Your task to perform on an android device: toggle notification dots Image 0: 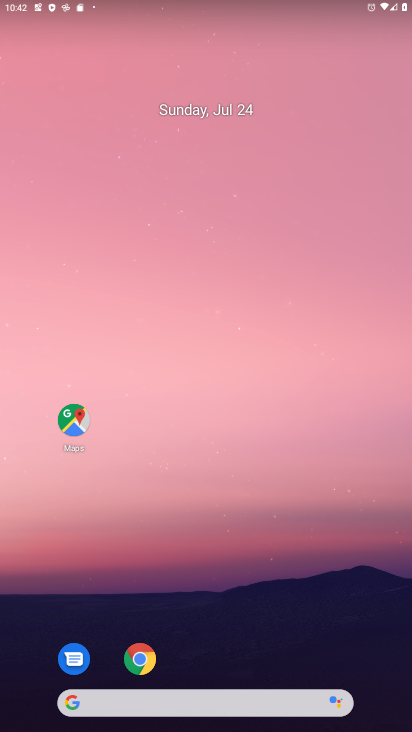
Step 0: drag from (302, 321) to (291, 195)
Your task to perform on an android device: toggle notification dots Image 1: 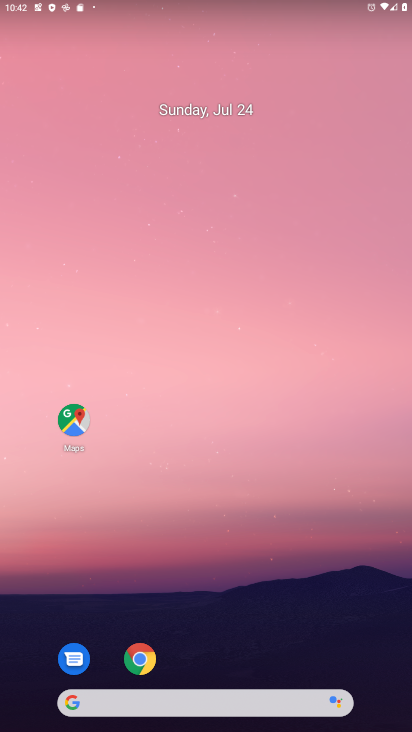
Step 1: drag from (382, 702) to (283, 11)
Your task to perform on an android device: toggle notification dots Image 2: 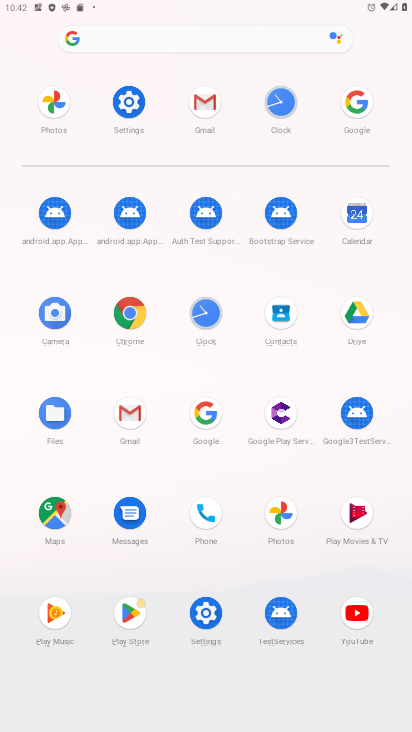
Step 2: click (125, 103)
Your task to perform on an android device: toggle notification dots Image 3: 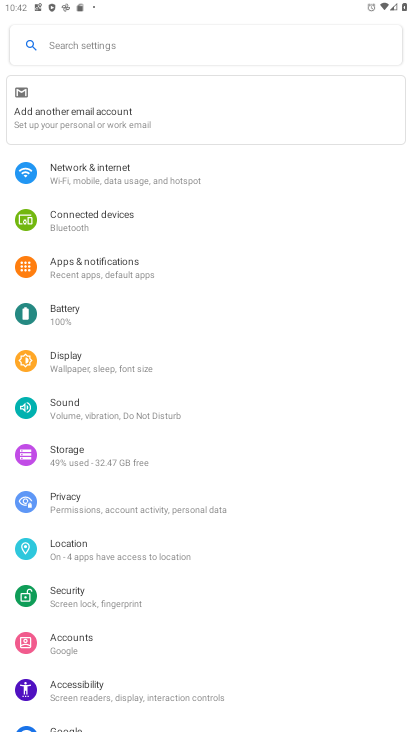
Step 3: click (57, 167)
Your task to perform on an android device: toggle notification dots Image 4: 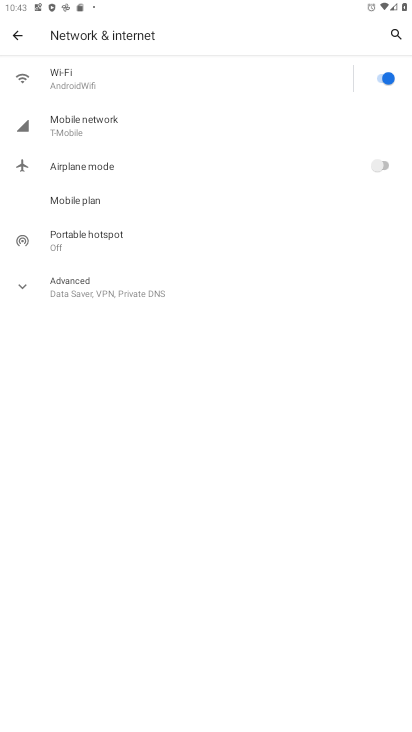
Step 4: click (17, 42)
Your task to perform on an android device: toggle notification dots Image 5: 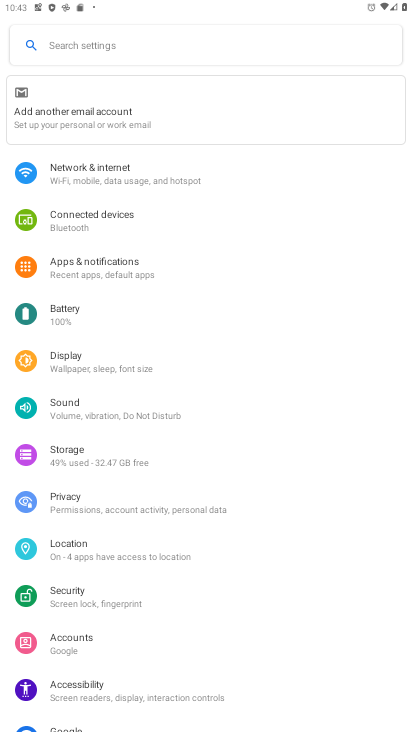
Step 5: click (117, 275)
Your task to perform on an android device: toggle notification dots Image 6: 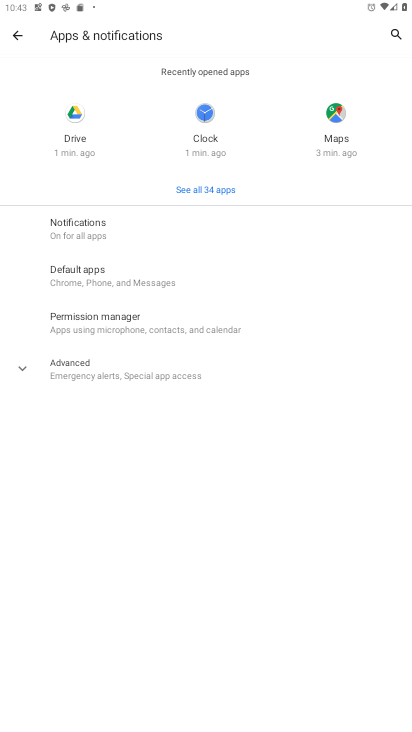
Step 6: click (53, 232)
Your task to perform on an android device: toggle notification dots Image 7: 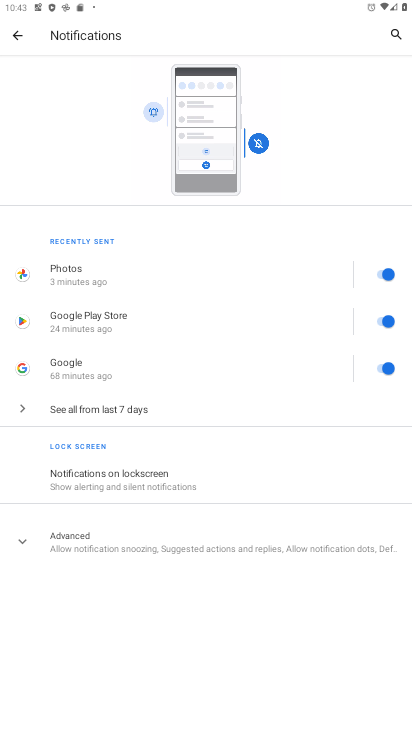
Step 7: click (22, 537)
Your task to perform on an android device: toggle notification dots Image 8: 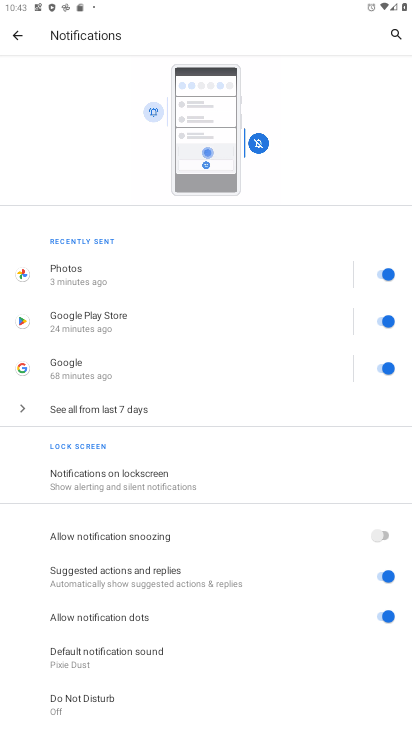
Step 8: task complete